Your task to perform on an android device: toggle translation in the chrome app Image 0: 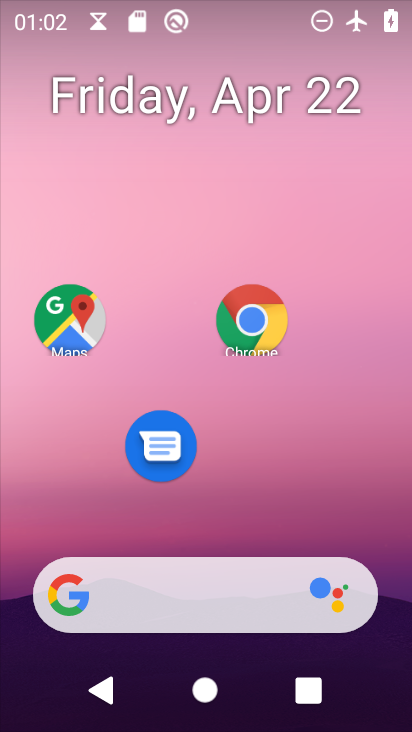
Step 0: drag from (234, 509) to (295, 179)
Your task to perform on an android device: toggle translation in the chrome app Image 1: 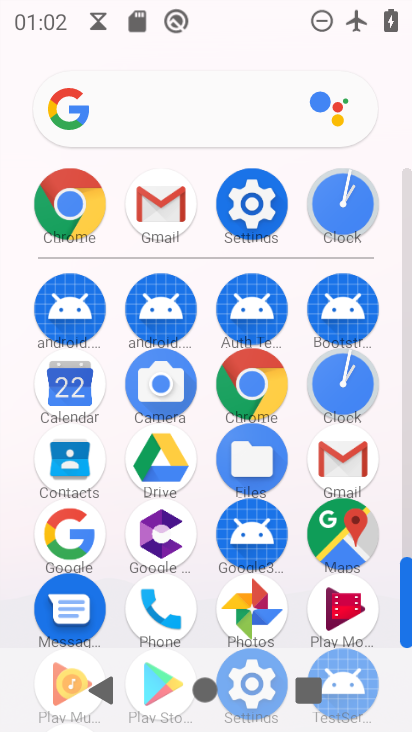
Step 1: click (260, 365)
Your task to perform on an android device: toggle translation in the chrome app Image 2: 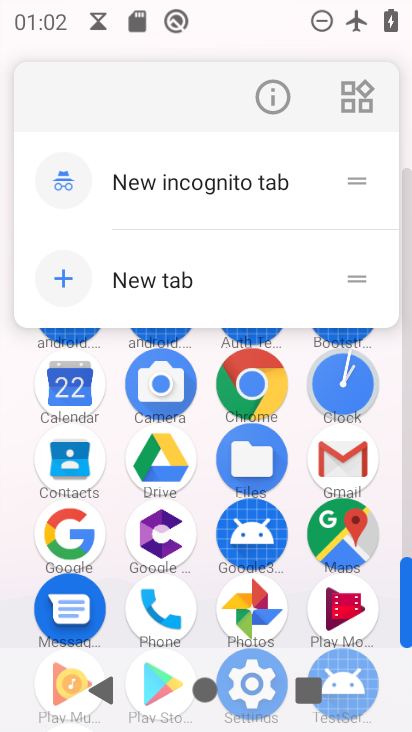
Step 2: click (278, 94)
Your task to perform on an android device: toggle translation in the chrome app Image 3: 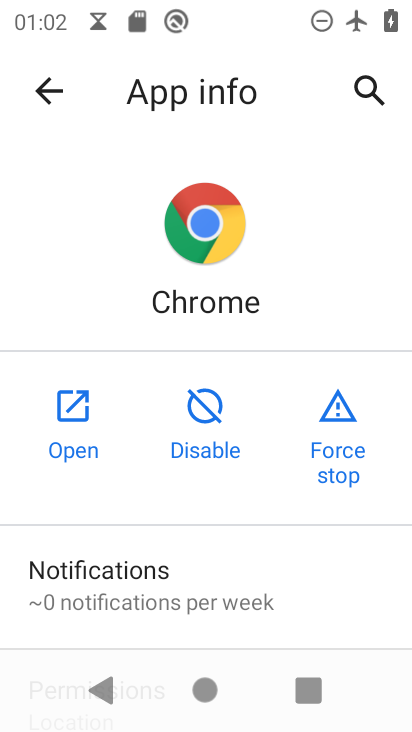
Step 3: click (59, 395)
Your task to perform on an android device: toggle translation in the chrome app Image 4: 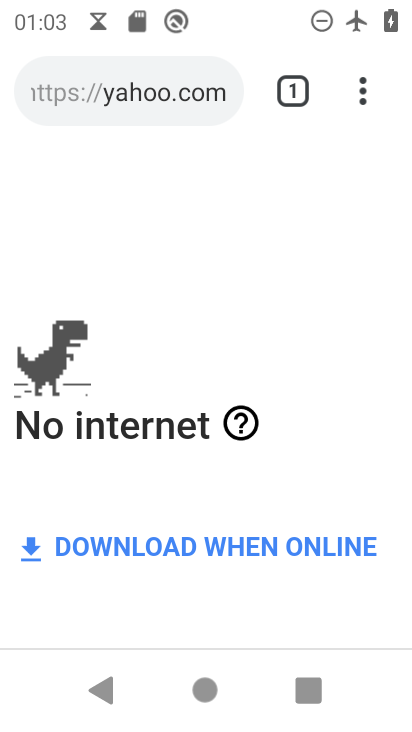
Step 4: drag from (376, 83) to (189, 486)
Your task to perform on an android device: toggle translation in the chrome app Image 5: 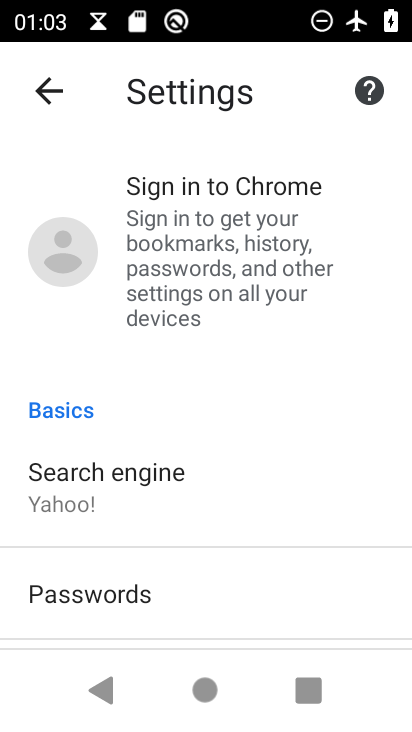
Step 5: drag from (157, 589) to (179, 202)
Your task to perform on an android device: toggle translation in the chrome app Image 6: 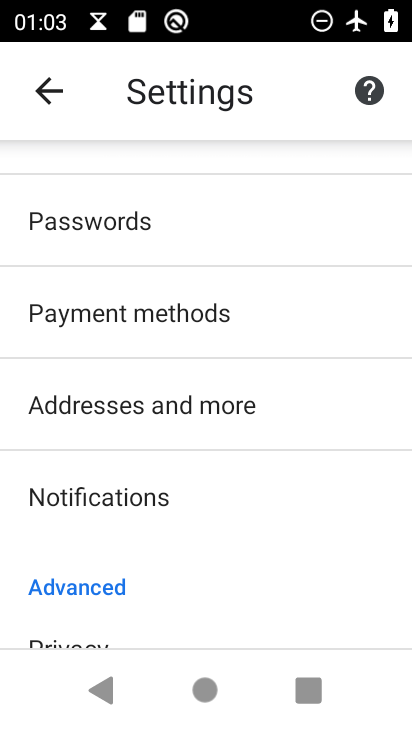
Step 6: drag from (171, 512) to (201, 287)
Your task to perform on an android device: toggle translation in the chrome app Image 7: 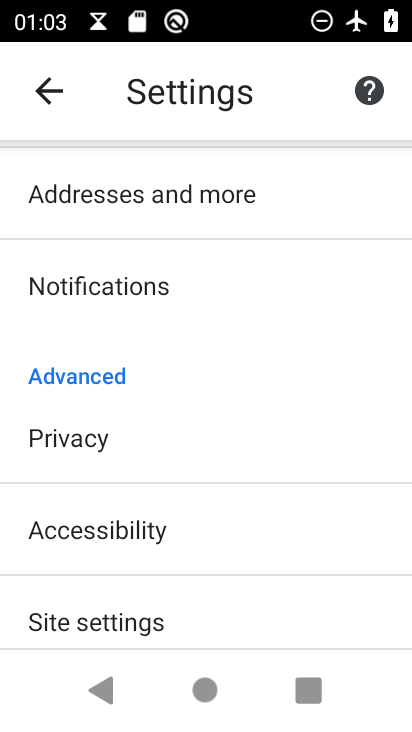
Step 7: drag from (195, 574) to (272, 305)
Your task to perform on an android device: toggle translation in the chrome app Image 8: 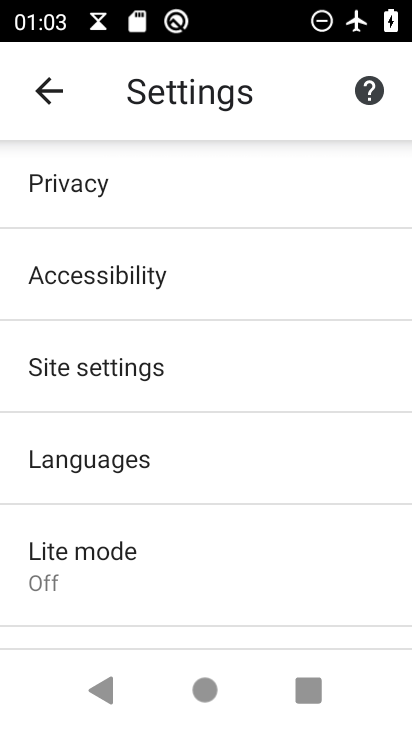
Step 8: click (234, 386)
Your task to perform on an android device: toggle translation in the chrome app Image 9: 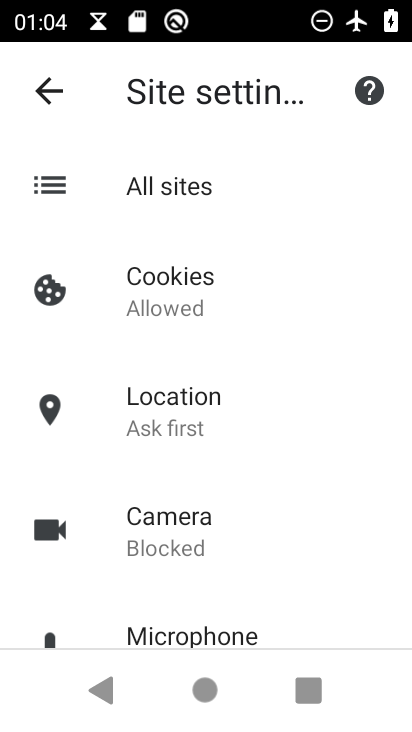
Step 9: click (34, 100)
Your task to perform on an android device: toggle translation in the chrome app Image 10: 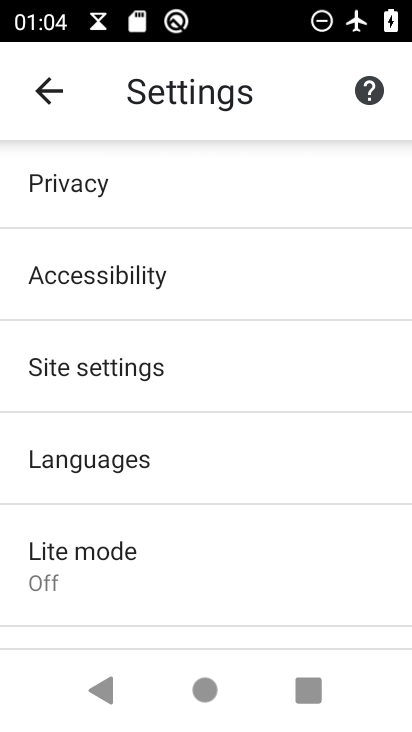
Step 10: click (140, 441)
Your task to perform on an android device: toggle translation in the chrome app Image 11: 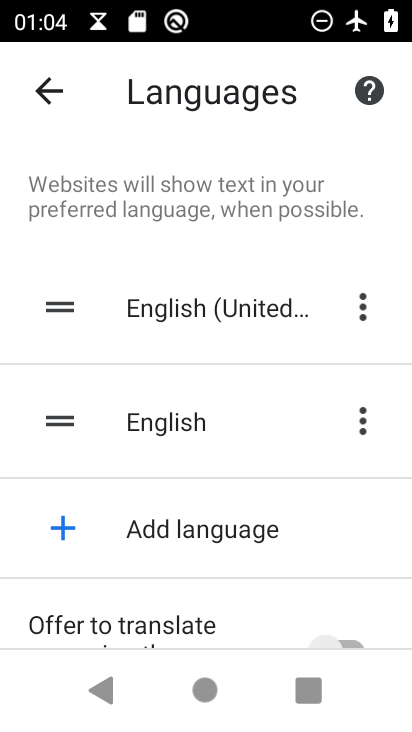
Step 11: drag from (169, 605) to (280, 131)
Your task to perform on an android device: toggle translation in the chrome app Image 12: 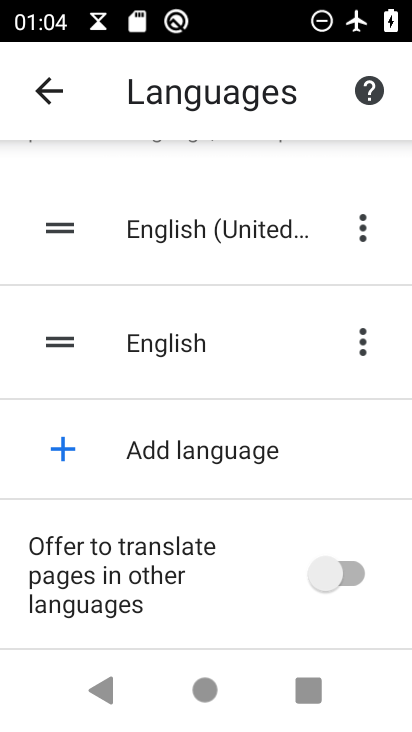
Step 12: click (195, 571)
Your task to perform on an android device: toggle translation in the chrome app Image 13: 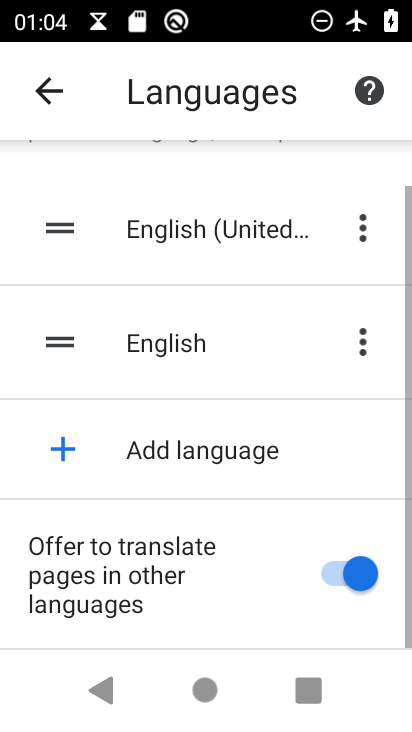
Step 13: task complete